Your task to perform on an android device: turn off translation in the chrome app Image 0: 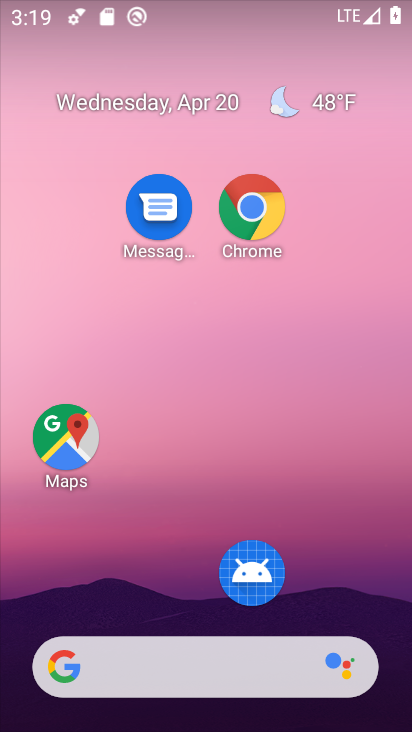
Step 0: drag from (167, 699) to (177, 170)
Your task to perform on an android device: turn off translation in the chrome app Image 1: 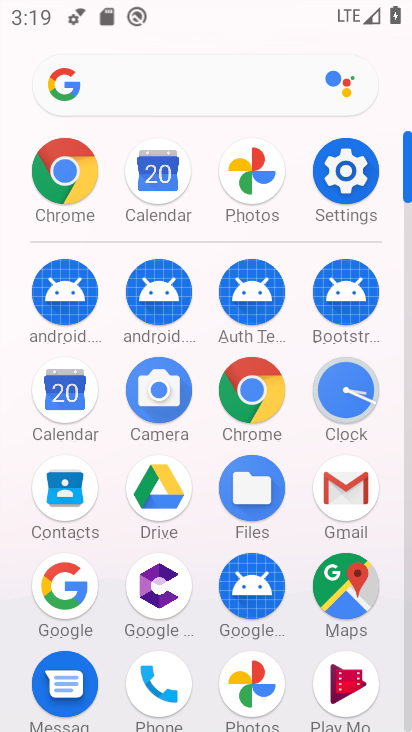
Step 1: click (65, 200)
Your task to perform on an android device: turn off translation in the chrome app Image 2: 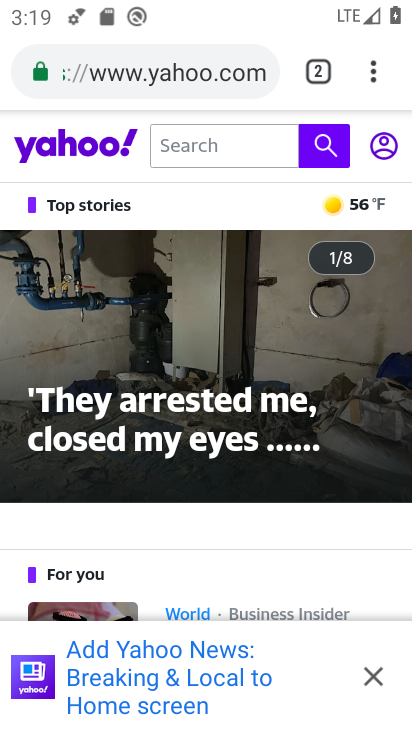
Step 2: click (374, 79)
Your task to perform on an android device: turn off translation in the chrome app Image 3: 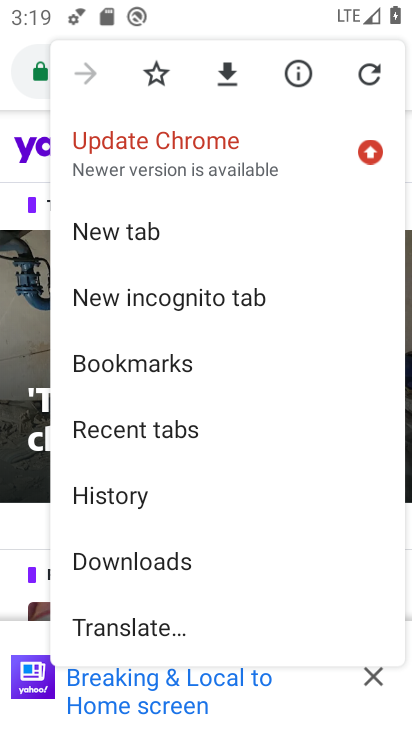
Step 3: drag from (304, 479) to (291, 196)
Your task to perform on an android device: turn off translation in the chrome app Image 4: 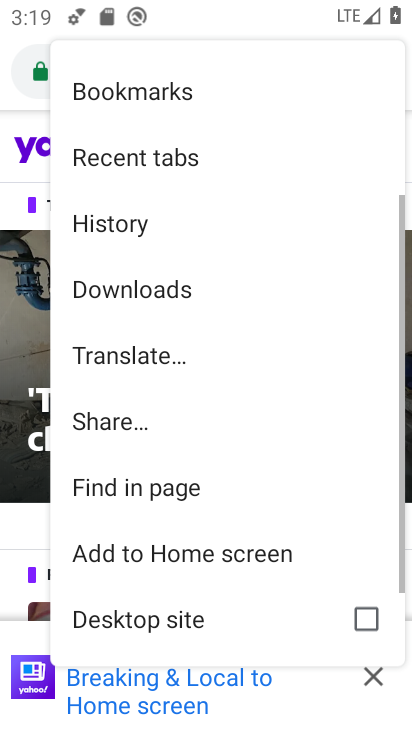
Step 4: drag from (246, 453) to (233, 212)
Your task to perform on an android device: turn off translation in the chrome app Image 5: 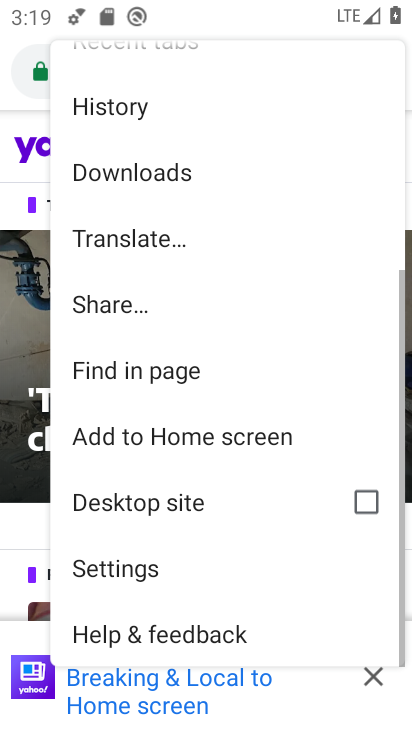
Step 5: drag from (226, 394) to (225, 245)
Your task to perform on an android device: turn off translation in the chrome app Image 6: 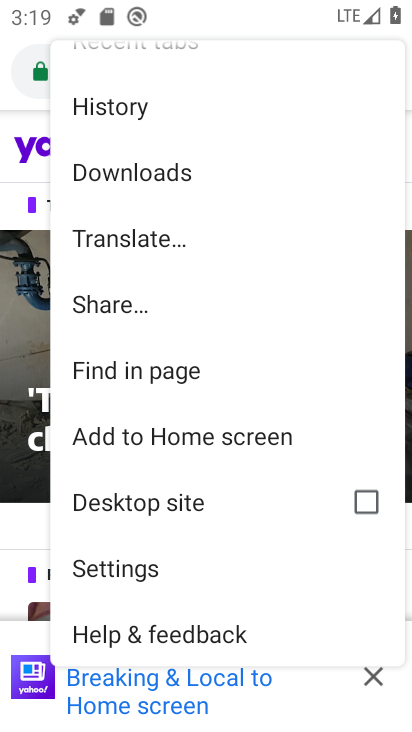
Step 6: click (234, 240)
Your task to perform on an android device: turn off translation in the chrome app Image 7: 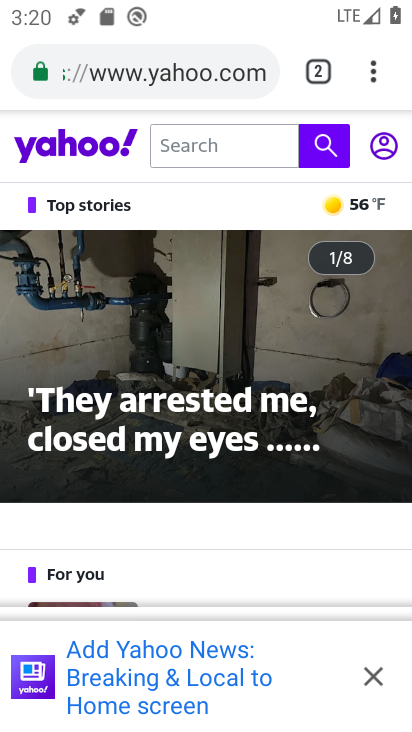
Step 7: click (380, 679)
Your task to perform on an android device: turn off translation in the chrome app Image 8: 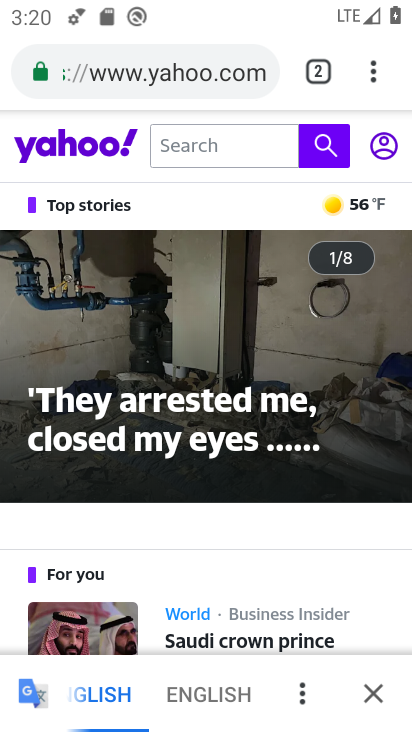
Step 8: click (305, 701)
Your task to perform on an android device: turn off translation in the chrome app Image 9: 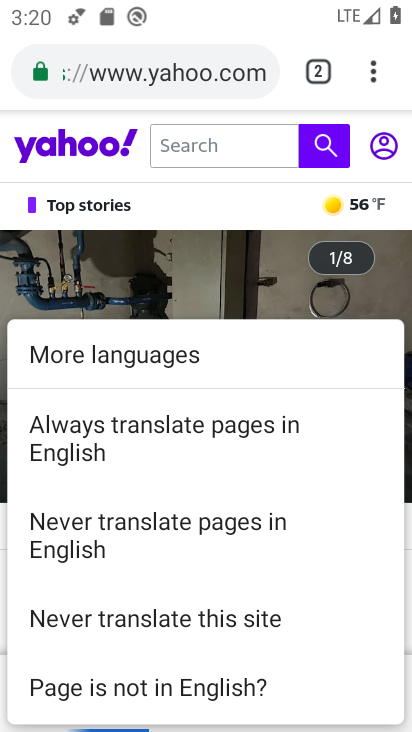
Step 9: click (273, 632)
Your task to perform on an android device: turn off translation in the chrome app Image 10: 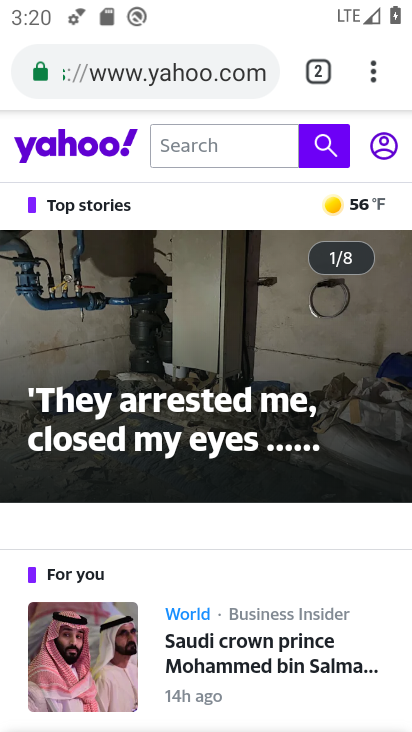
Step 10: task complete